Your task to perform on an android device: change timer sound Image 0: 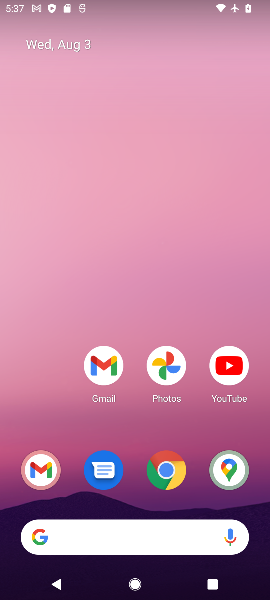
Step 0: drag from (136, 412) to (236, 71)
Your task to perform on an android device: change timer sound Image 1: 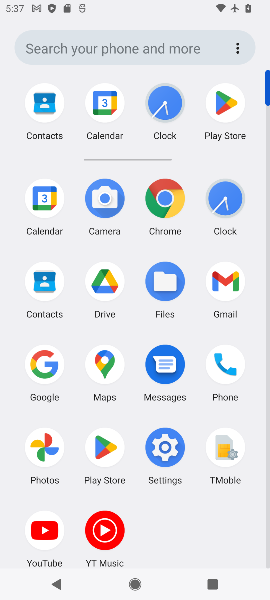
Step 1: click (223, 206)
Your task to perform on an android device: change timer sound Image 2: 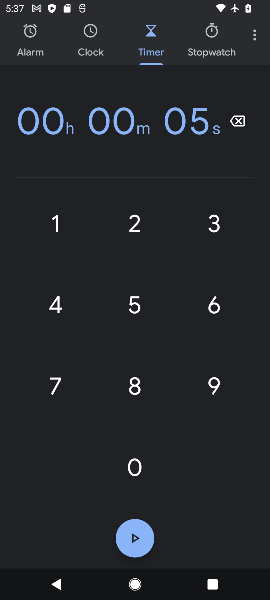
Step 2: click (258, 40)
Your task to perform on an android device: change timer sound Image 3: 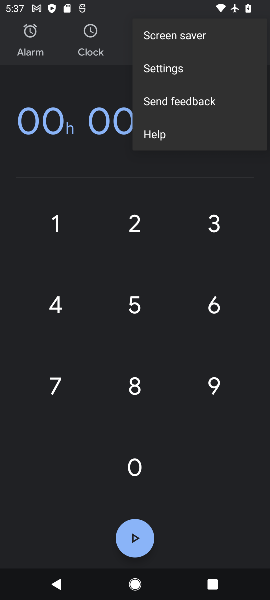
Step 3: click (184, 70)
Your task to perform on an android device: change timer sound Image 4: 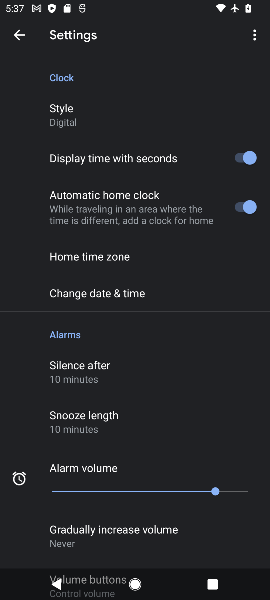
Step 4: drag from (215, 435) to (235, 219)
Your task to perform on an android device: change timer sound Image 5: 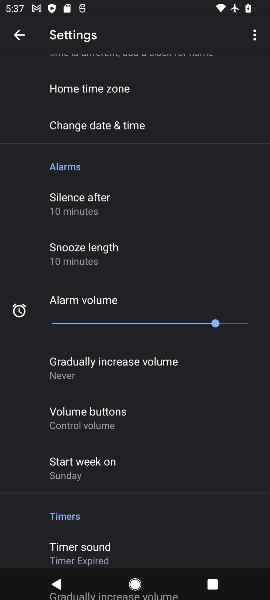
Step 5: click (92, 553)
Your task to perform on an android device: change timer sound Image 6: 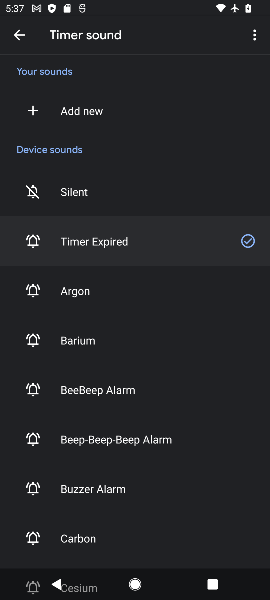
Step 6: click (130, 291)
Your task to perform on an android device: change timer sound Image 7: 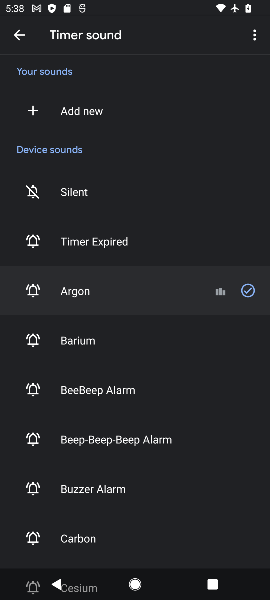
Step 7: task complete